Your task to perform on an android device: Open notification settings Image 0: 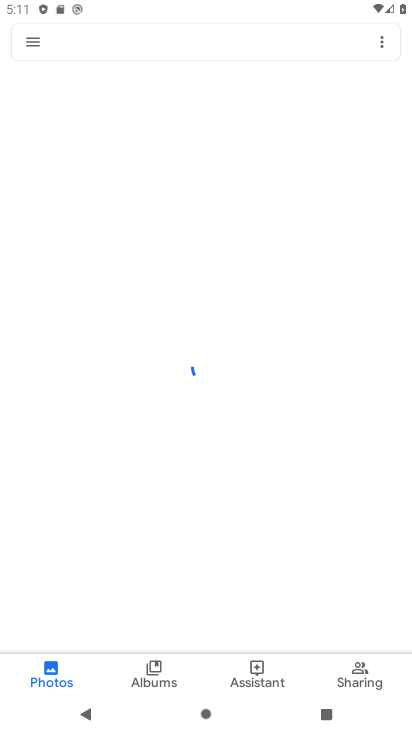
Step 0: press home button
Your task to perform on an android device: Open notification settings Image 1: 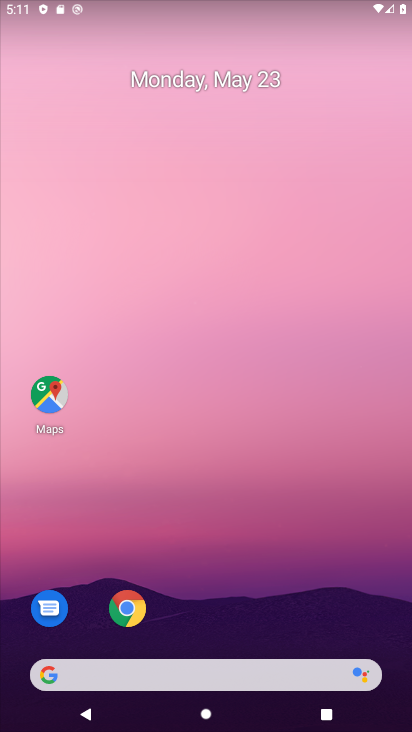
Step 1: drag from (59, 517) to (214, 147)
Your task to perform on an android device: Open notification settings Image 2: 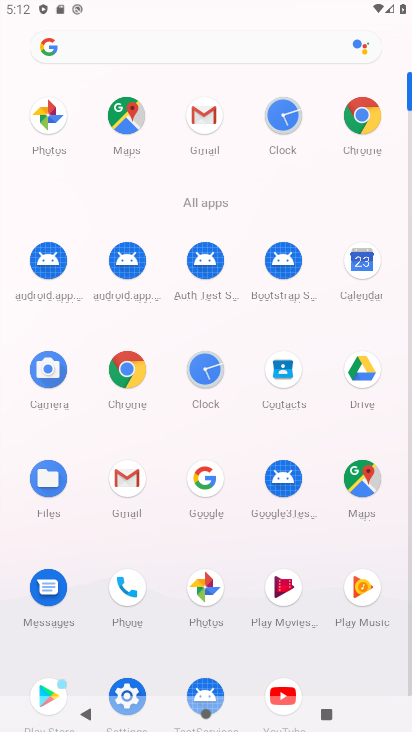
Step 2: click (106, 680)
Your task to perform on an android device: Open notification settings Image 3: 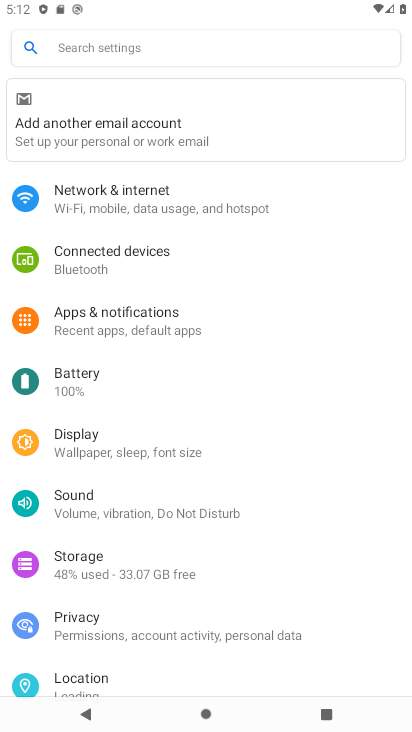
Step 3: click (166, 310)
Your task to perform on an android device: Open notification settings Image 4: 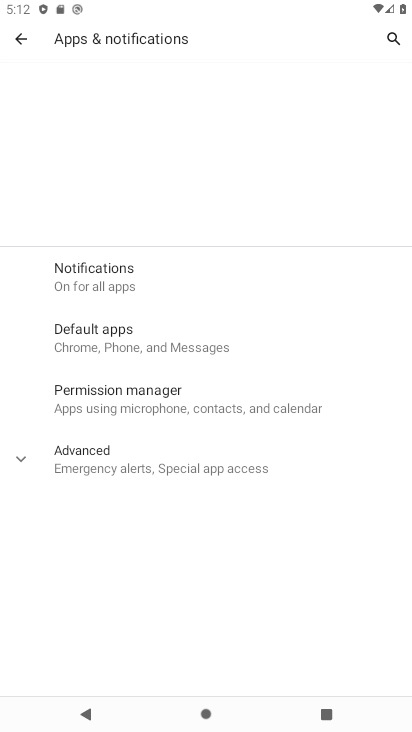
Step 4: click (146, 270)
Your task to perform on an android device: Open notification settings Image 5: 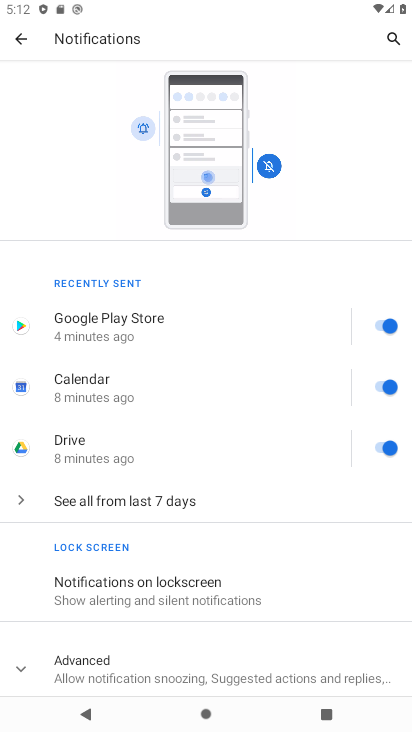
Step 5: task complete